Your task to perform on an android device: open app "Nova Launcher" Image 0: 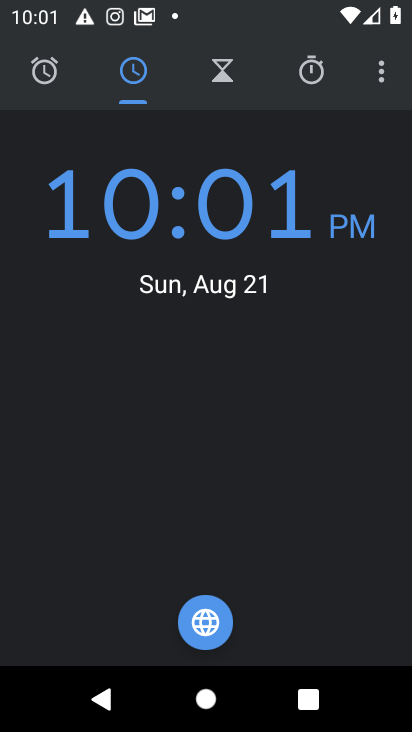
Step 0: press home button
Your task to perform on an android device: open app "Nova Launcher" Image 1: 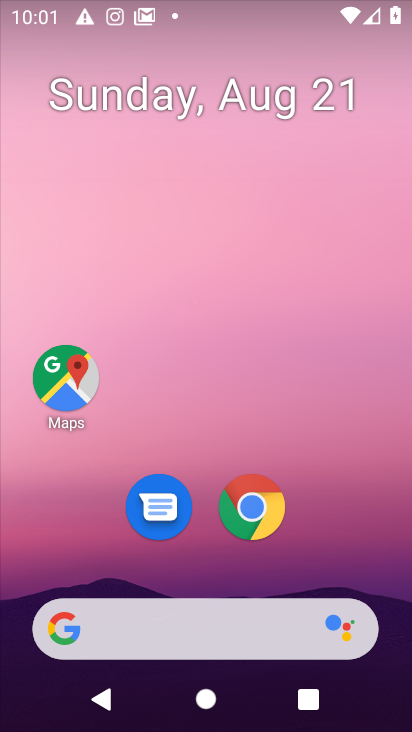
Step 1: drag from (191, 567) to (147, 35)
Your task to perform on an android device: open app "Nova Launcher" Image 2: 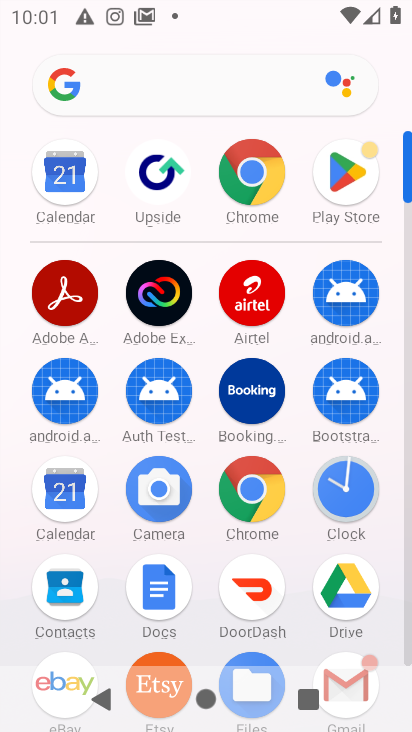
Step 2: click (350, 186)
Your task to perform on an android device: open app "Nova Launcher" Image 3: 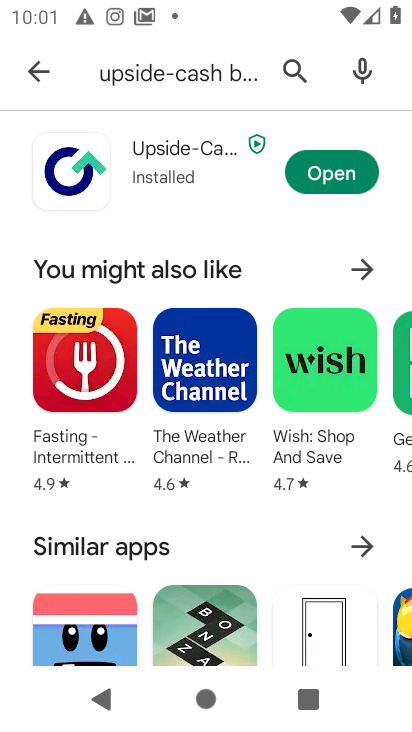
Step 3: click (32, 63)
Your task to perform on an android device: open app "Nova Launcher" Image 4: 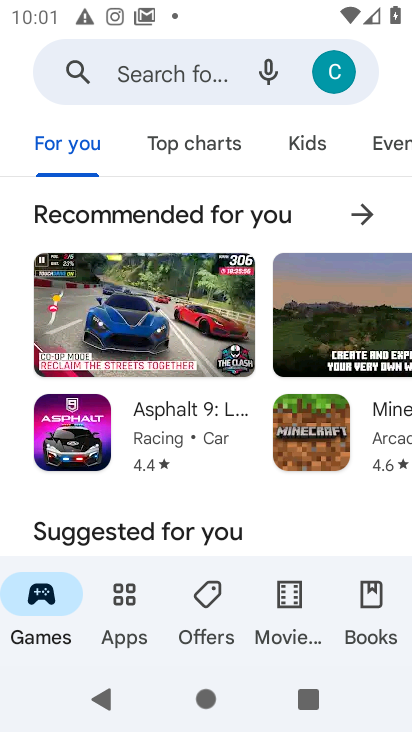
Step 4: click (104, 66)
Your task to perform on an android device: open app "Nova Launcher" Image 5: 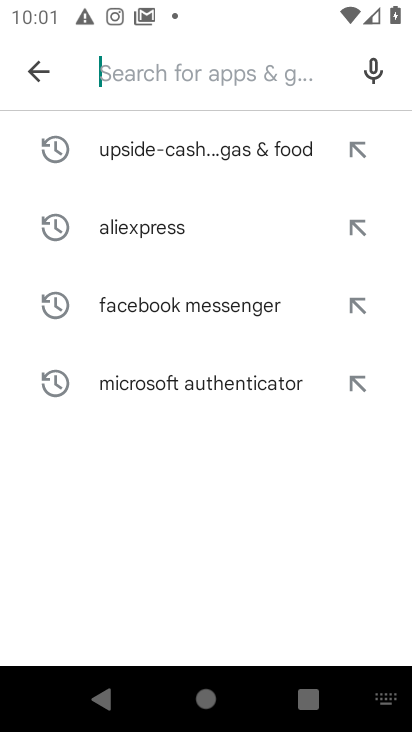
Step 5: type "nova launcher"
Your task to perform on an android device: open app "Nova Launcher" Image 6: 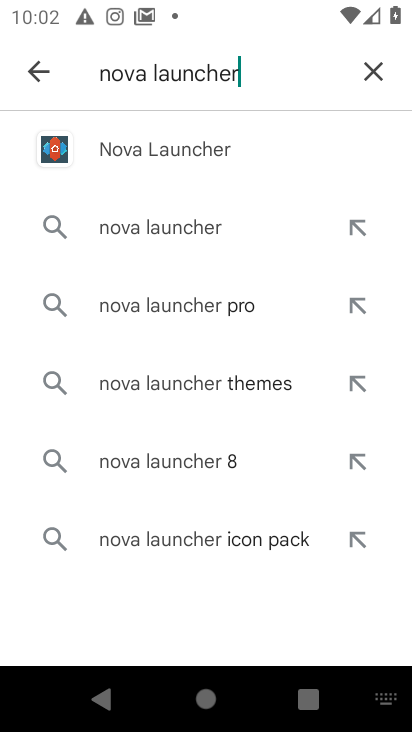
Step 6: click (148, 153)
Your task to perform on an android device: open app "Nova Launcher" Image 7: 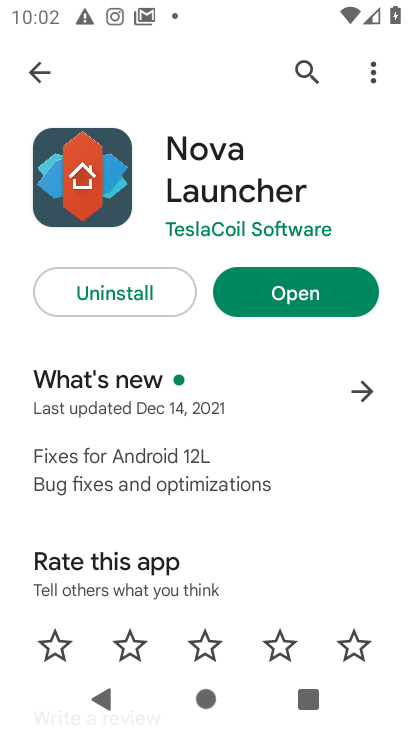
Step 7: click (280, 297)
Your task to perform on an android device: open app "Nova Launcher" Image 8: 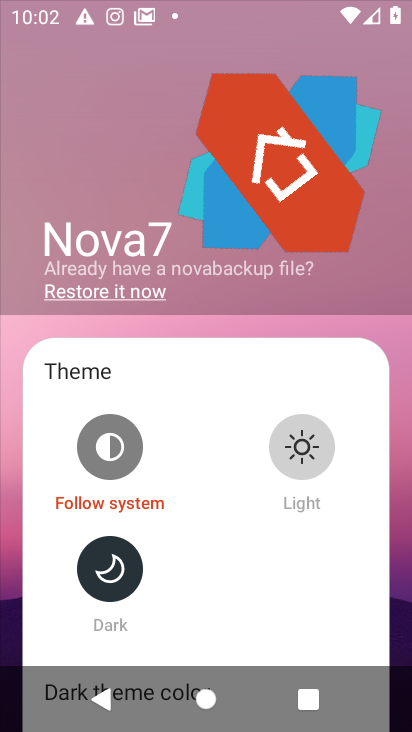
Step 8: task complete